Your task to perform on an android device: turn on the 24-hour format for clock Image 0: 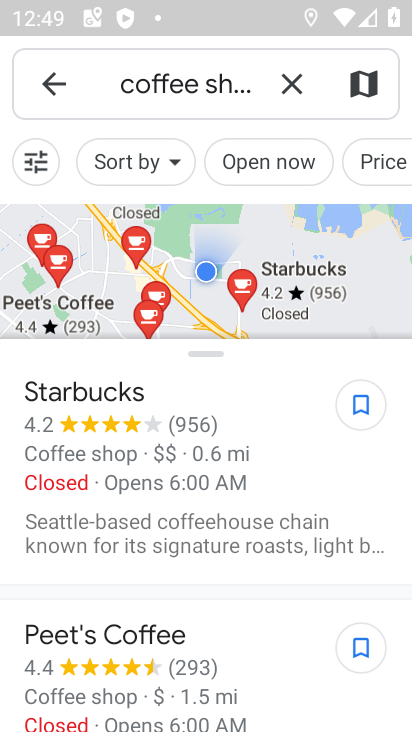
Step 0: press home button
Your task to perform on an android device: turn on the 24-hour format for clock Image 1: 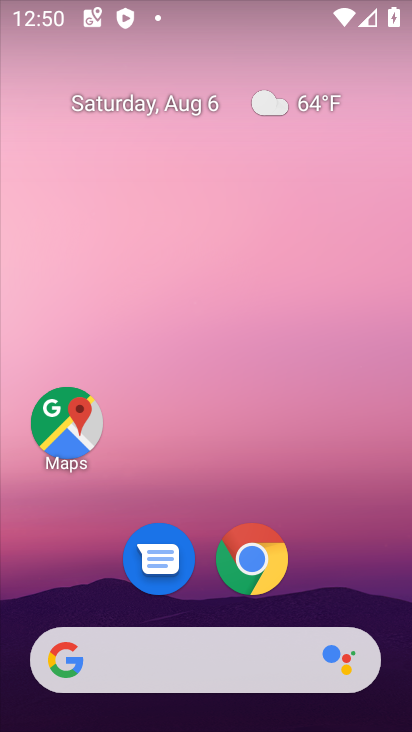
Step 1: drag from (44, 723) to (232, 231)
Your task to perform on an android device: turn on the 24-hour format for clock Image 2: 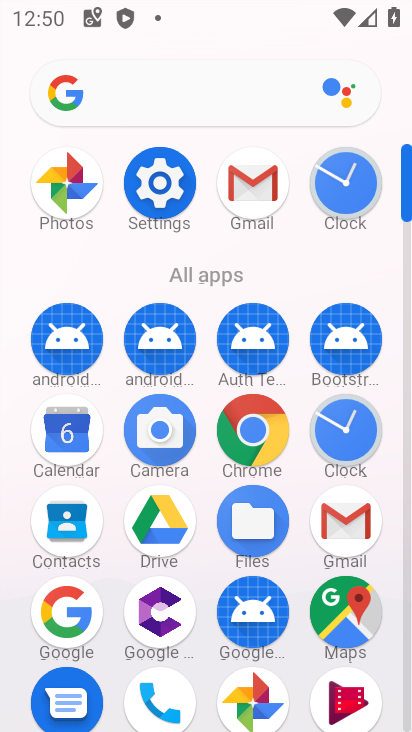
Step 2: click (330, 429)
Your task to perform on an android device: turn on the 24-hour format for clock Image 3: 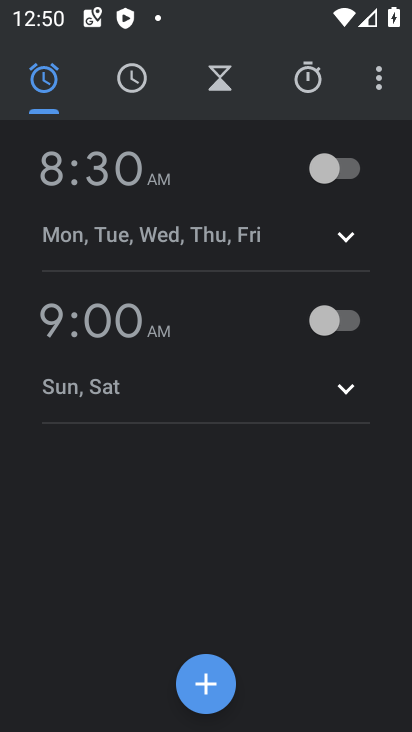
Step 3: click (380, 67)
Your task to perform on an android device: turn on the 24-hour format for clock Image 4: 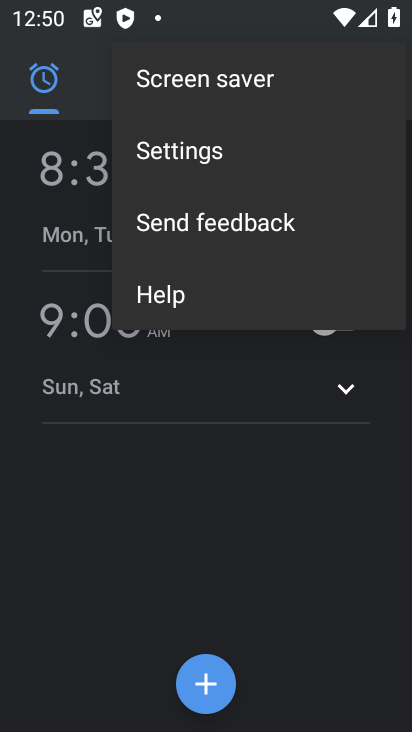
Step 4: click (266, 162)
Your task to perform on an android device: turn on the 24-hour format for clock Image 5: 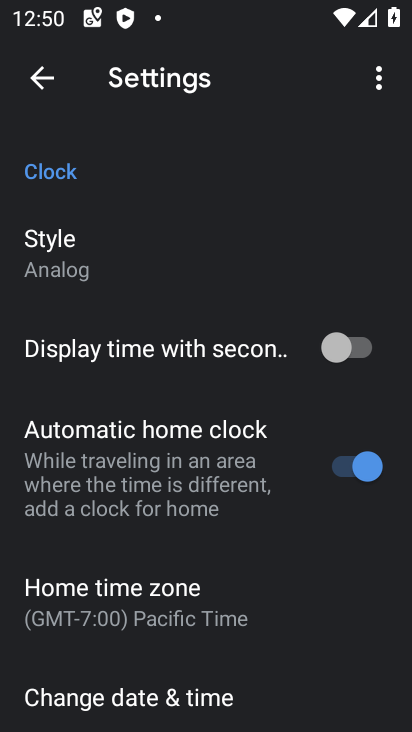
Step 5: click (374, 75)
Your task to perform on an android device: turn on the 24-hour format for clock Image 6: 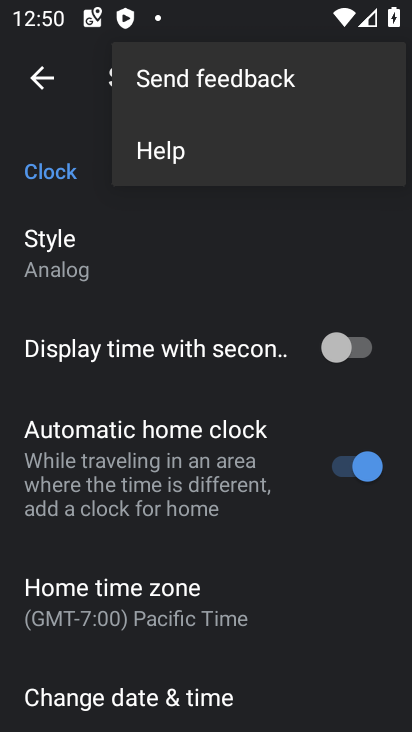
Step 6: click (274, 279)
Your task to perform on an android device: turn on the 24-hour format for clock Image 7: 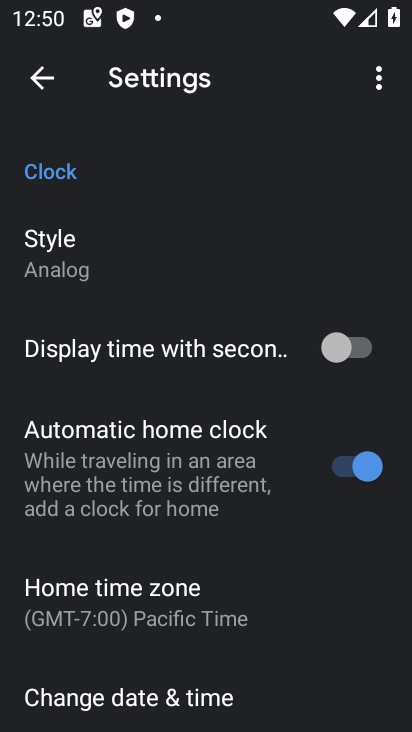
Step 7: drag from (365, 669) to (399, 57)
Your task to perform on an android device: turn on the 24-hour format for clock Image 8: 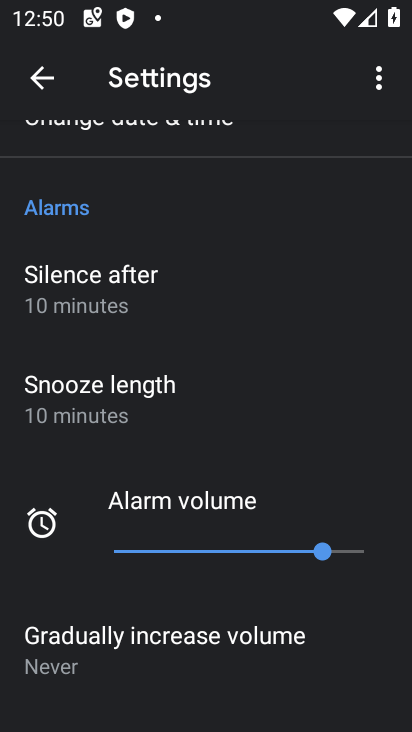
Step 8: drag from (230, 236) to (197, 657)
Your task to perform on an android device: turn on the 24-hour format for clock Image 9: 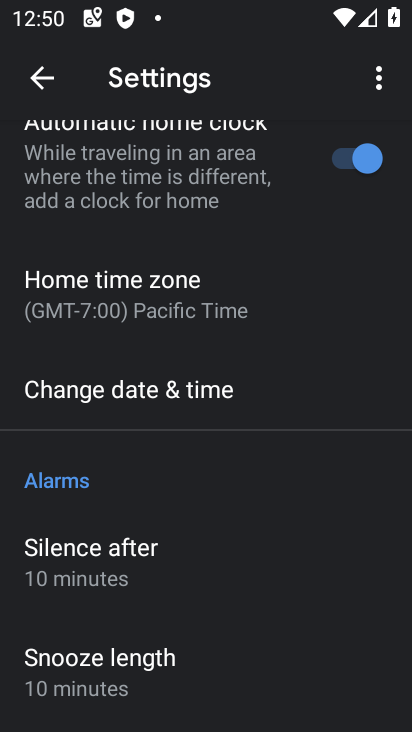
Step 9: click (198, 408)
Your task to perform on an android device: turn on the 24-hour format for clock Image 10: 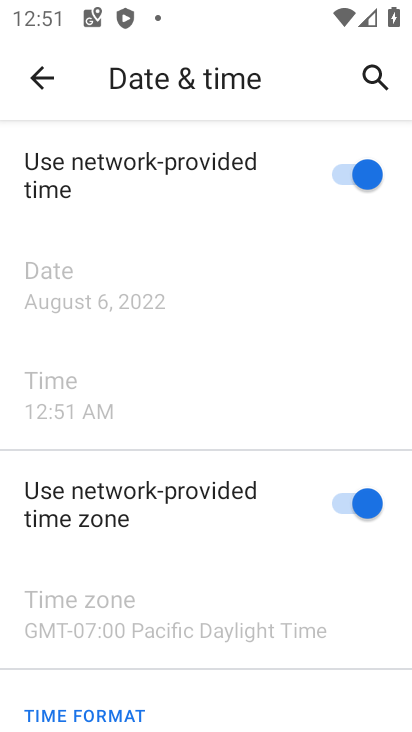
Step 10: drag from (287, 486) to (389, 10)
Your task to perform on an android device: turn on the 24-hour format for clock Image 11: 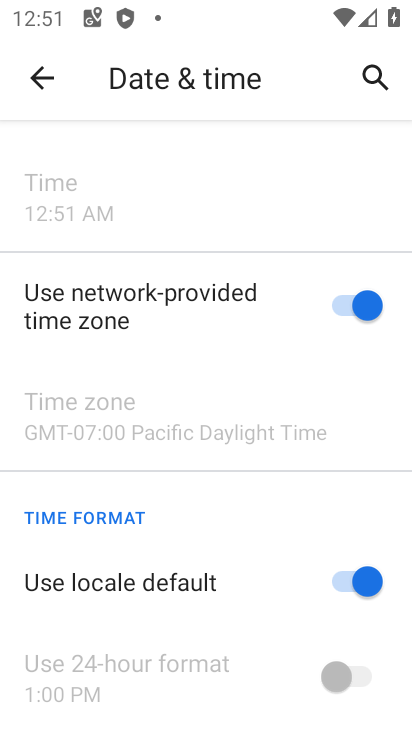
Step 11: click (384, 564)
Your task to perform on an android device: turn on the 24-hour format for clock Image 12: 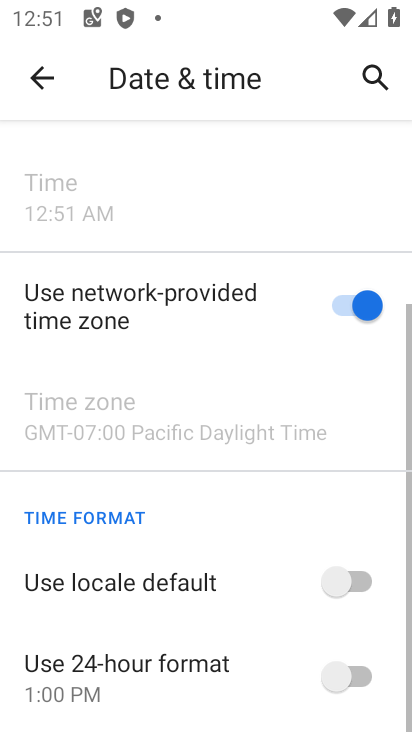
Step 12: click (351, 695)
Your task to perform on an android device: turn on the 24-hour format for clock Image 13: 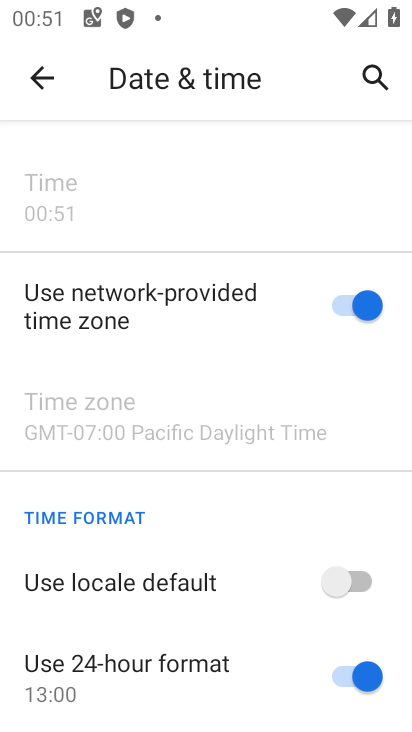
Step 13: task complete